Your task to perform on an android device: What's on my calendar tomorrow? Image 0: 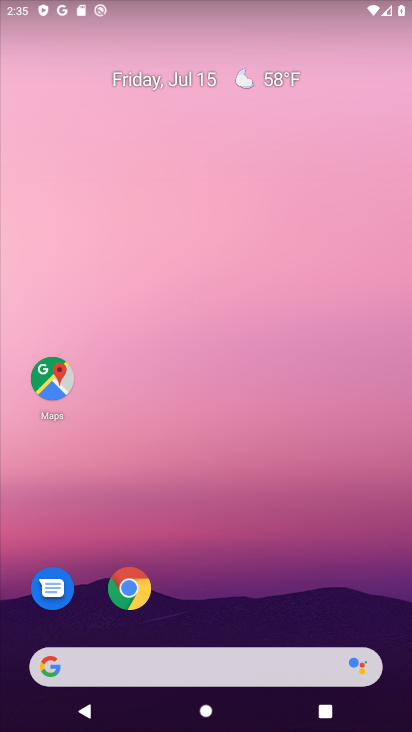
Step 0: drag from (268, 592) to (71, 125)
Your task to perform on an android device: What's on my calendar tomorrow? Image 1: 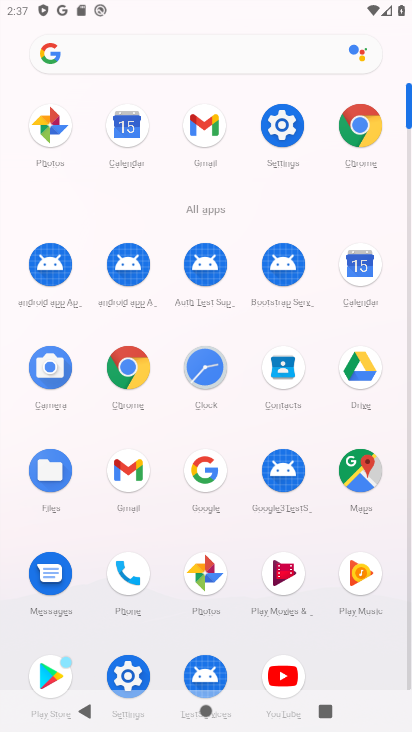
Step 1: click (351, 254)
Your task to perform on an android device: What's on my calendar tomorrow? Image 2: 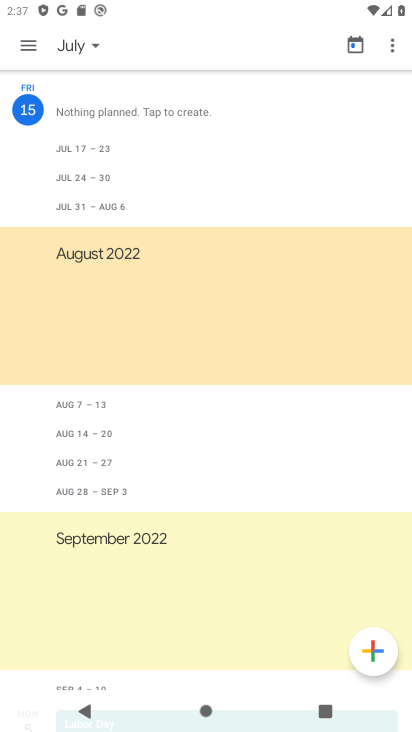
Step 2: task complete